Your task to perform on an android device: move a message to another label in the gmail app Image 0: 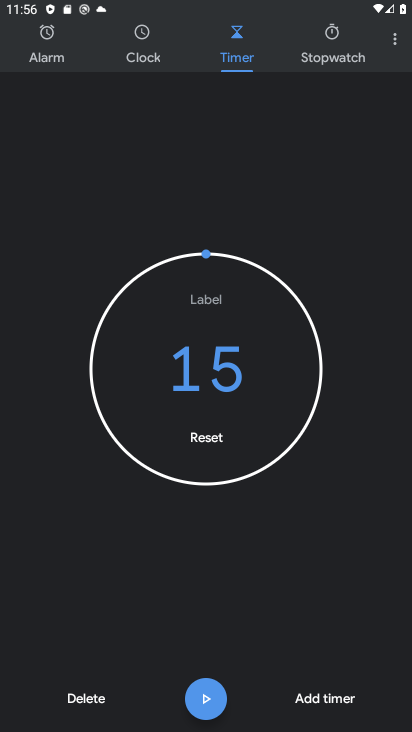
Step 0: press home button
Your task to perform on an android device: move a message to another label in the gmail app Image 1: 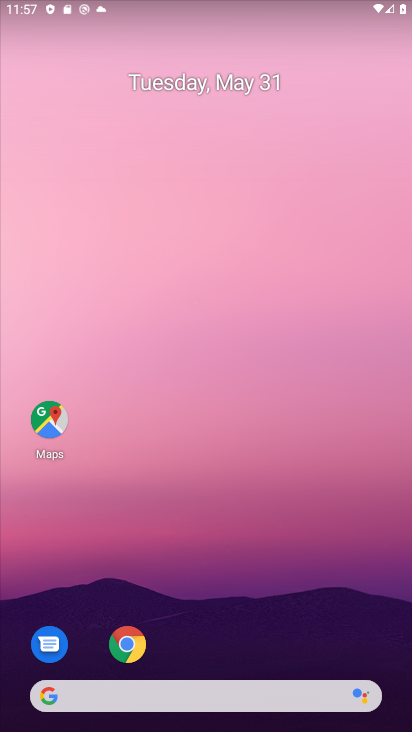
Step 1: drag from (348, 601) to (351, 124)
Your task to perform on an android device: move a message to another label in the gmail app Image 2: 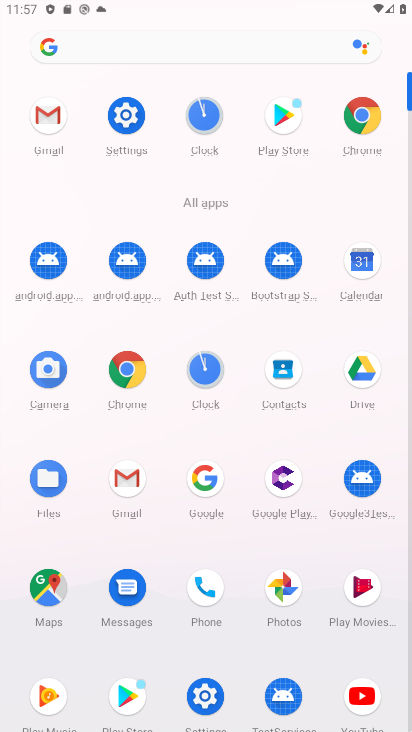
Step 2: click (128, 482)
Your task to perform on an android device: move a message to another label in the gmail app Image 3: 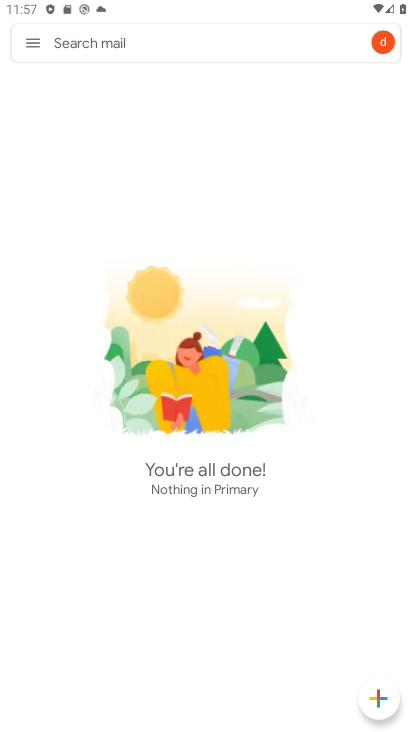
Step 3: click (22, 40)
Your task to perform on an android device: move a message to another label in the gmail app Image 4: 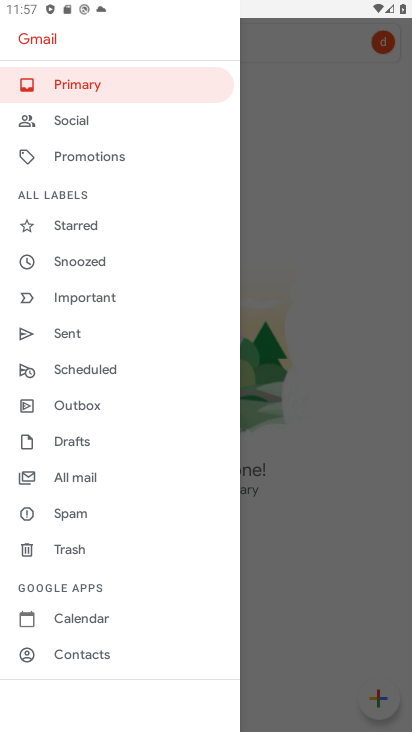
Step 4: drag from (145, 622) to (158, 365)
Your task to perform on an android device: move a message to another label in the gmail app Image 5: 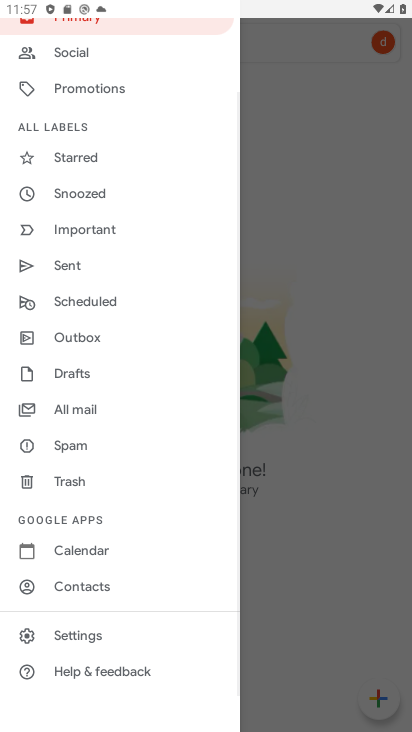
Step 5: click (111, 414)
Your task to perform on an android device: move a message to another label in the gmail app Image 6: 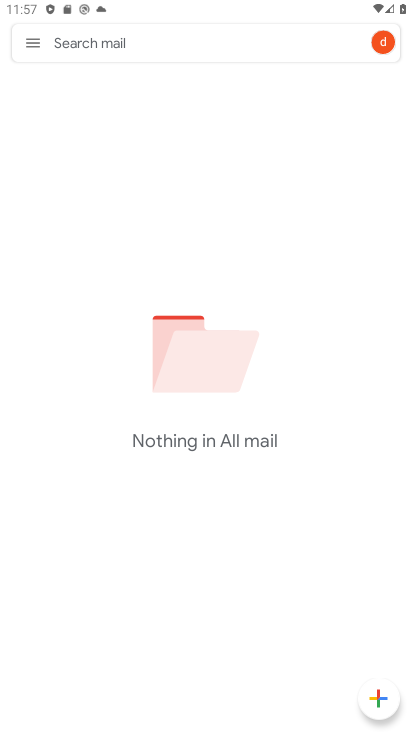
Step 6: task complete